Your task to perform on an android device: Open the stopwatch Image 0: 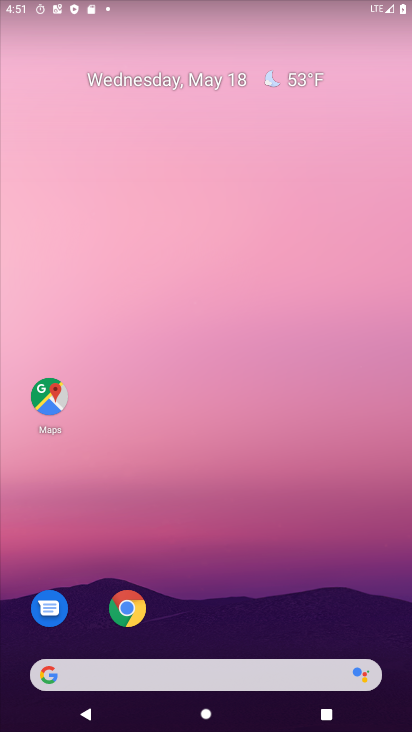
Step 0: drag from (202, 680) to (251, 90)
Your task to perform on an android device: Open the stopwatch Image 1: 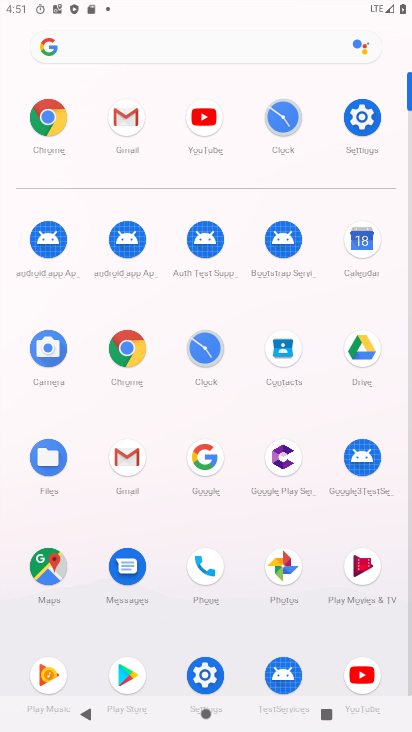
Step 1: click (197, 360)
Your task to perform on an android device: Open the stopwatch Image 2: 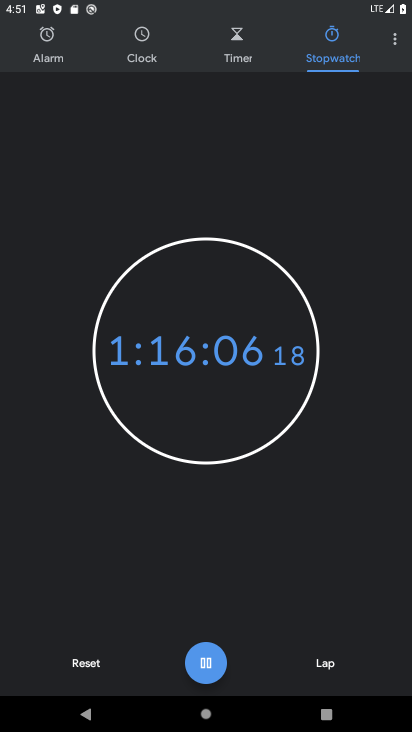
Step 2: task complete